Your task to perform on an android device: What's the weather? Image 0: 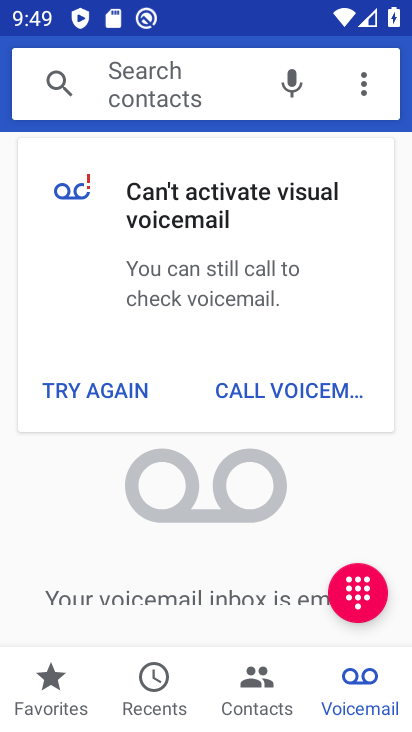
Step 0: press home button
Your task to perform on an android device: What's the weather? Image 1: 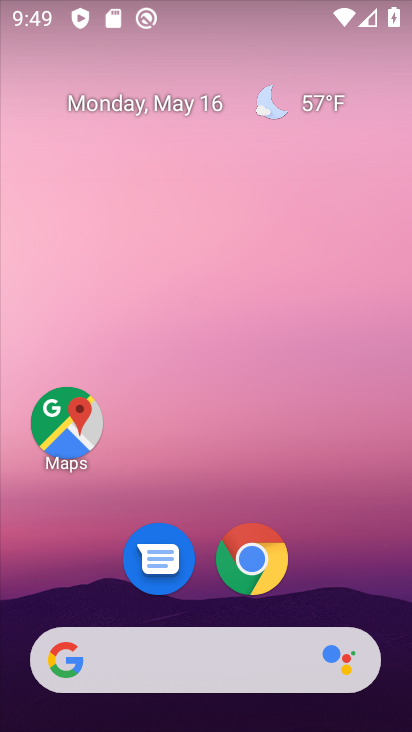
Step 1: click (320, 105)
Your task to perform on an android device: What's the weather? Image 2: 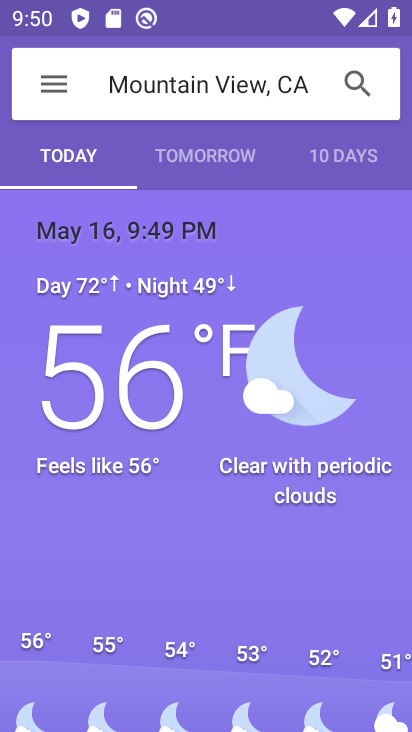
Step 2: task complete